Your task to perform on an android device: Open Wikipedia Image 0: 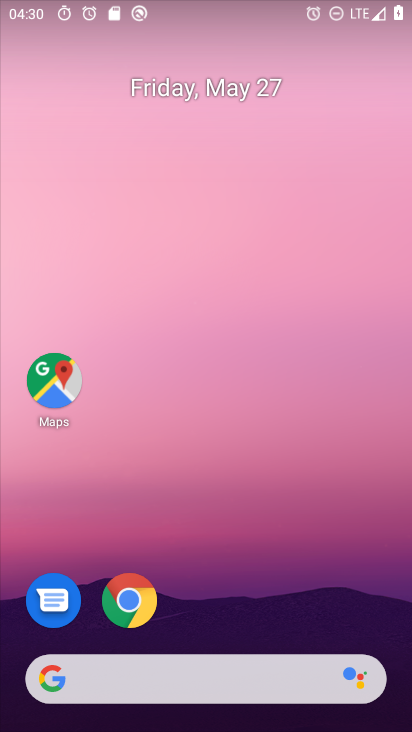
Step 0: click (127, 603)
Your task to perform on an android device: Open Wikipedia Image 1: 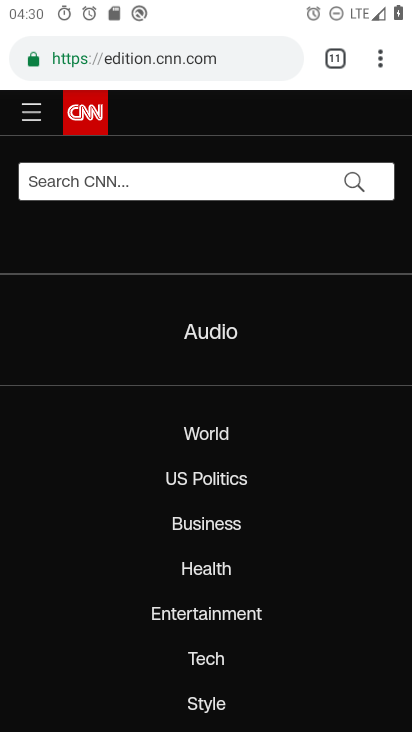
Step 1: click (382, 66)
Your task to perform on an android device: Open Wikipedia Image 2: 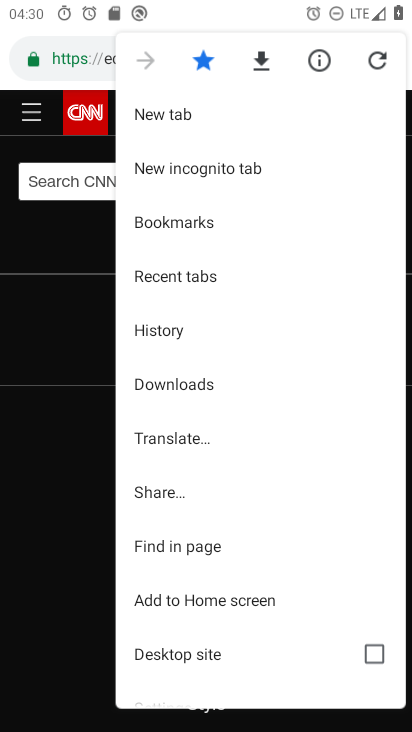
Step 2: click (162, 113)
Your task to perform on an android device: Open Wikipedia Image 3: 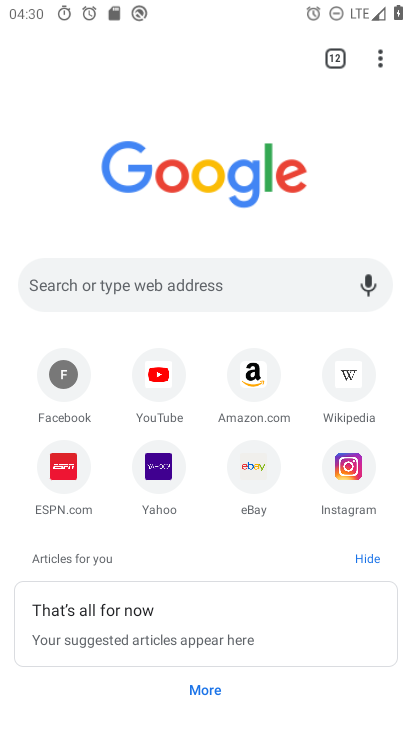
Step 3: click (353, 381)
Your task to perform on an android device: Open Wikipedia Image 4: 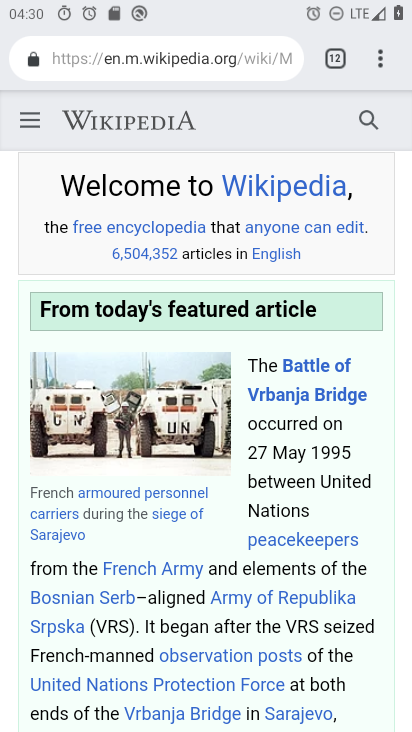
Step 4: task complete